Your task to perform on an android device: turn on location history Image 0: 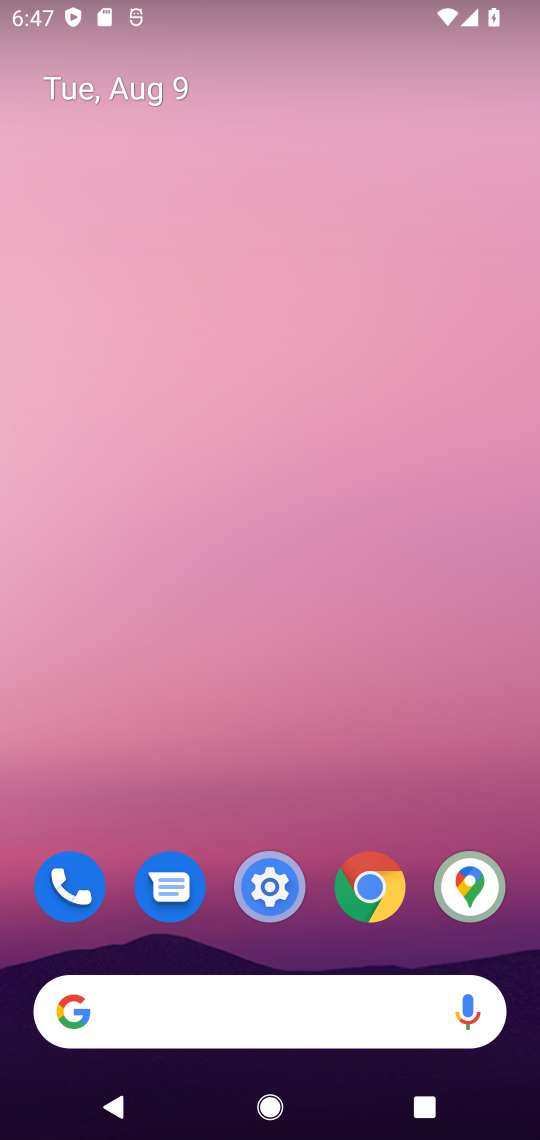
Step 0: click (278, 890)
Your task to perform on an android device: turn on location history Image 1: 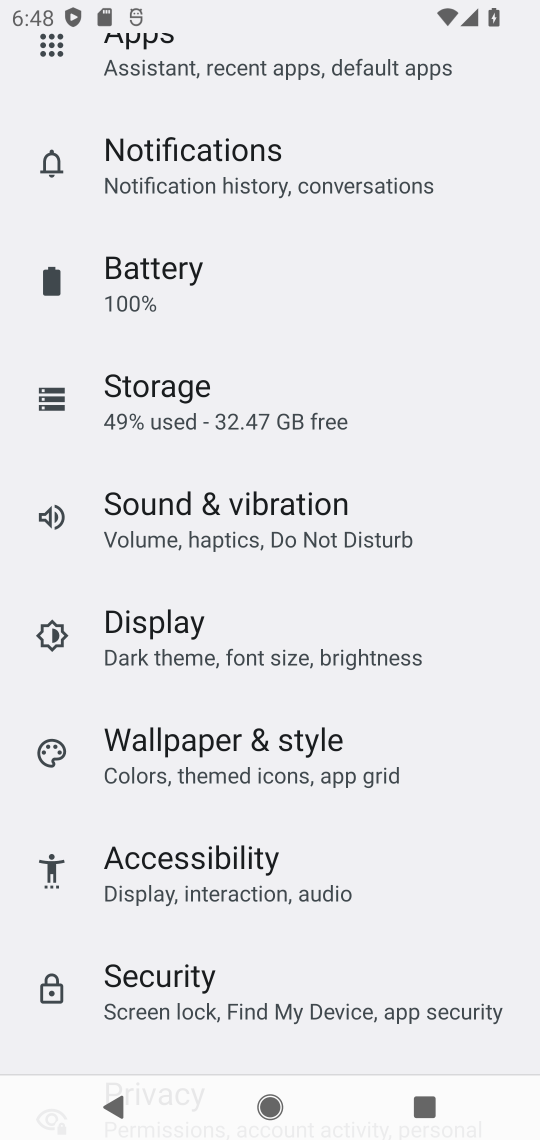
Step 1: drag from (345, 930) to (320, 181)
Your task to perform on an android device: turn on location history Image 2: 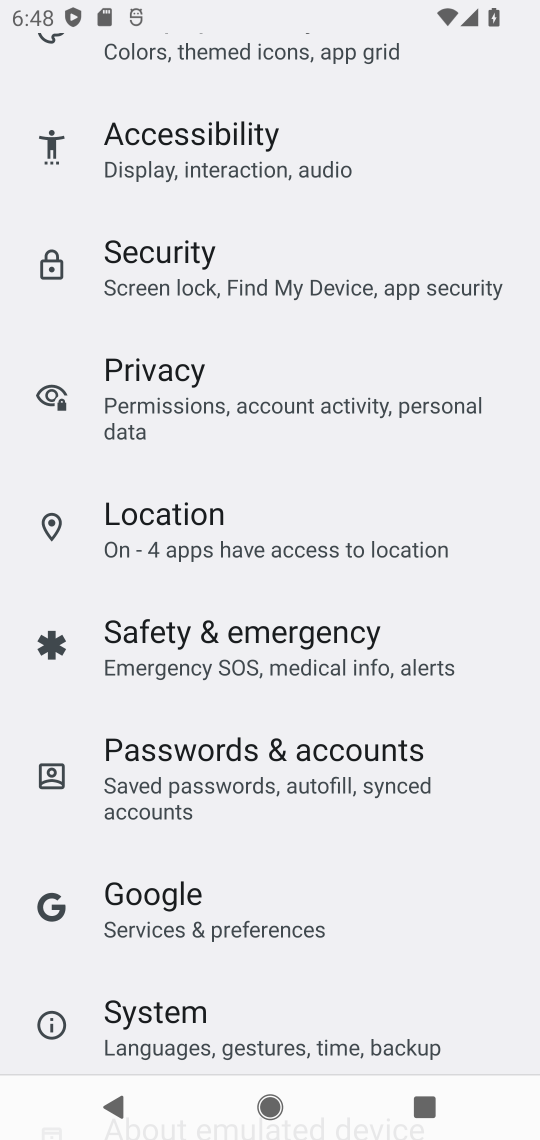
Step 2: click (286, 532)
Your task to perform on an android device: turn on location history Image 3: 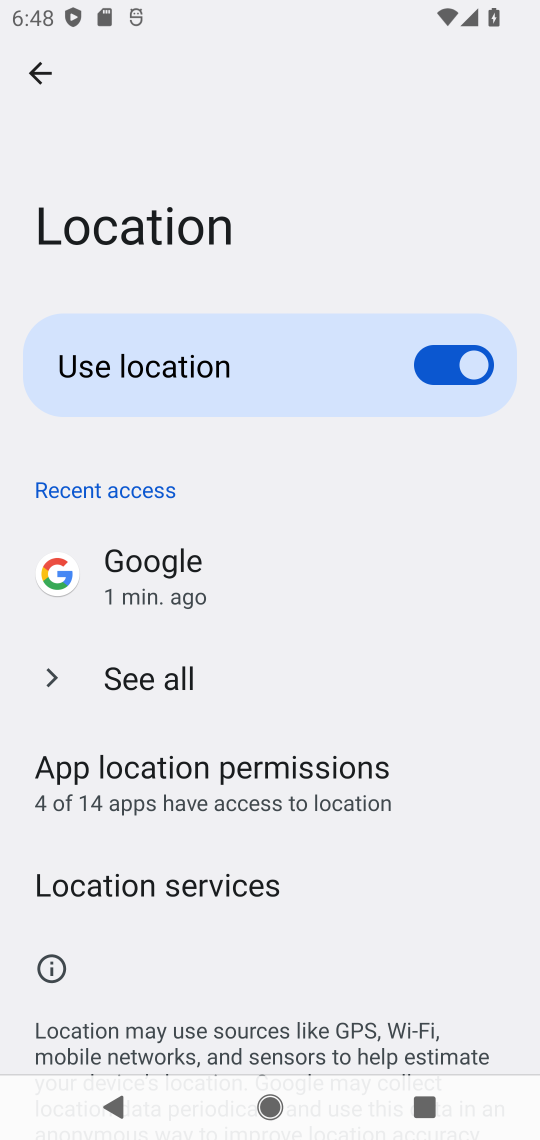
Step 3: click (252, 887)
Your task to perform on an android device: turn on location history Image 4: 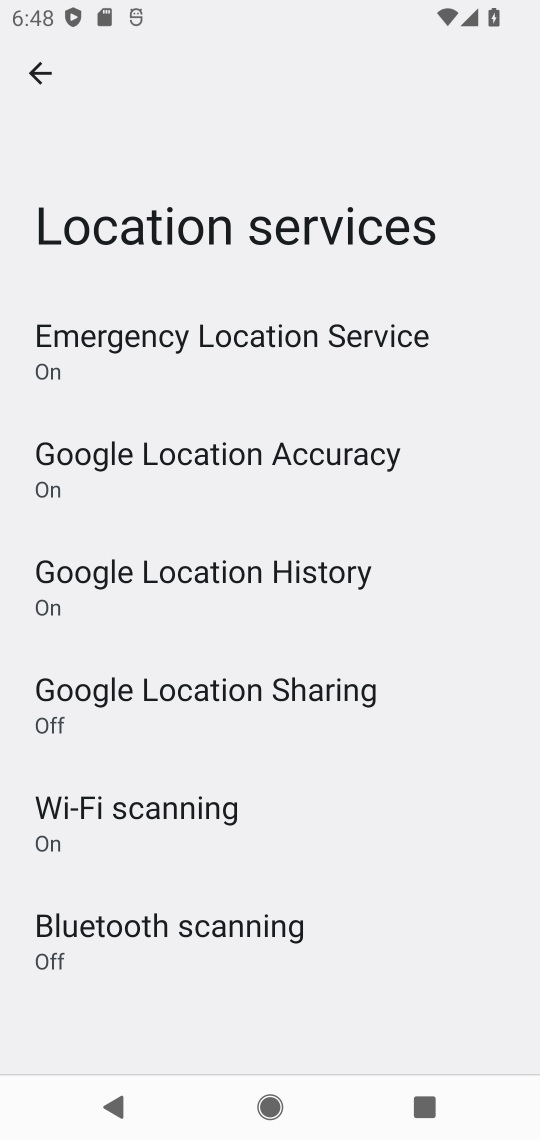
Step 4: task complete